Your task to perform on an android device: What is the recent news? Image 0: 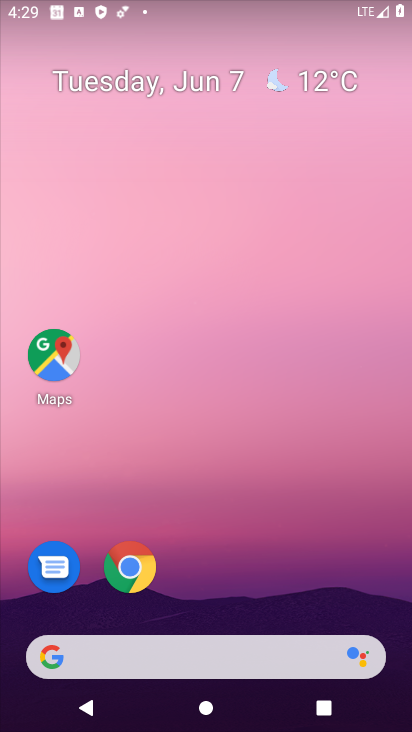
Step 0: drag from (220, 575) to (277, 41)
Your task to perform on an android device: What is the recent news? Image 1: 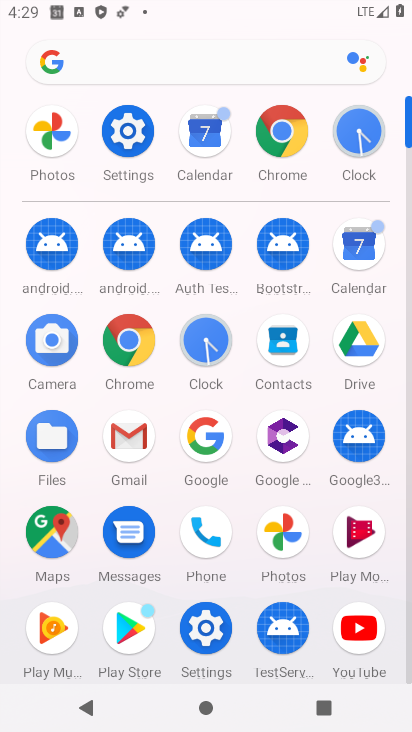
Step 1: click (142, 345)
Your task to perform on an android device: What is the recent news? Image 2: 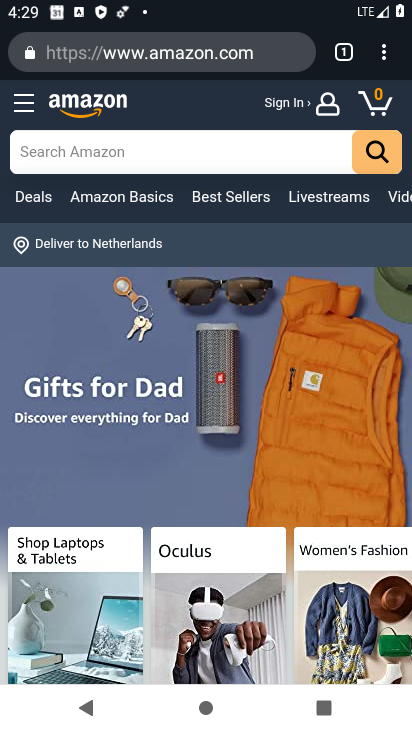
Step 2: click (243, 58)
Your task to perform on an android device: What is the recent news? Image 3: 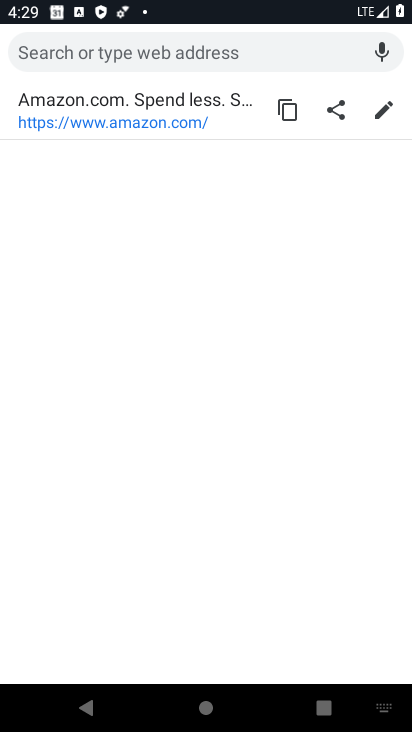
Step 3: type "recent news"
Your task to perform on an android device: What is the recent news? Image 4: 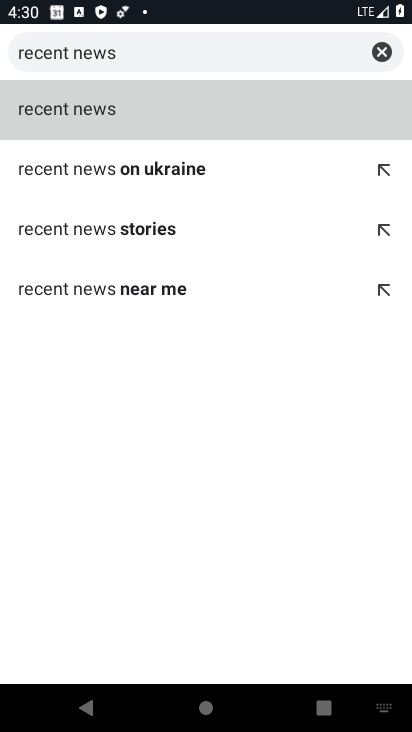
Step 4: click (264, 114)
Your task to perform on an android device: What is the recent news? Image 5: 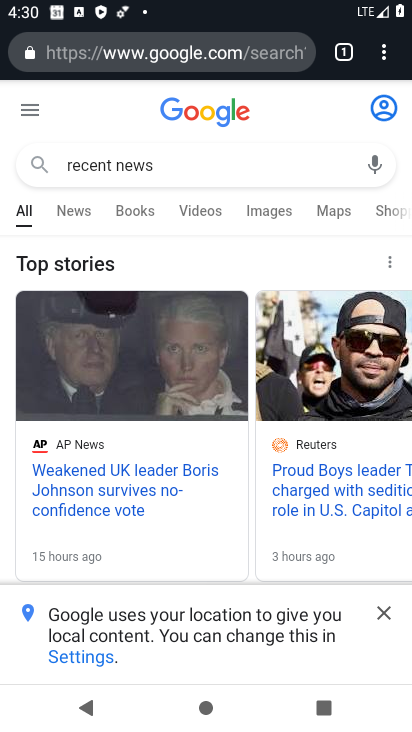
Step 5: task complete